Your task to perform on an android device: Add razer blackwidow to the cart on costco Image 0: 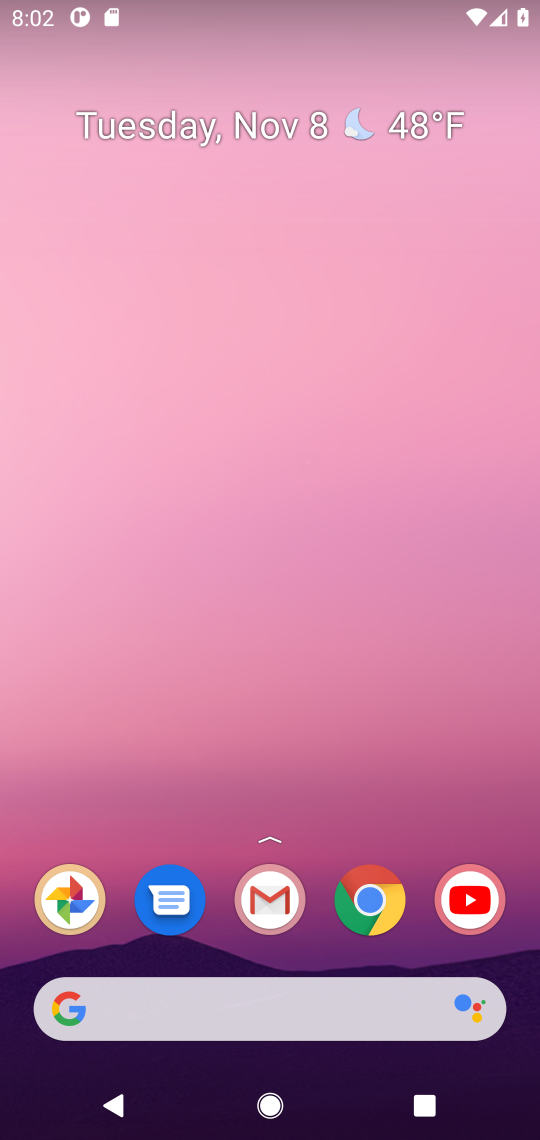
Step 0: drag from (195, 1036) to (216, 301)
Your task to perform on an android device: Add razer blackwidow to the cart on costco Image 1: 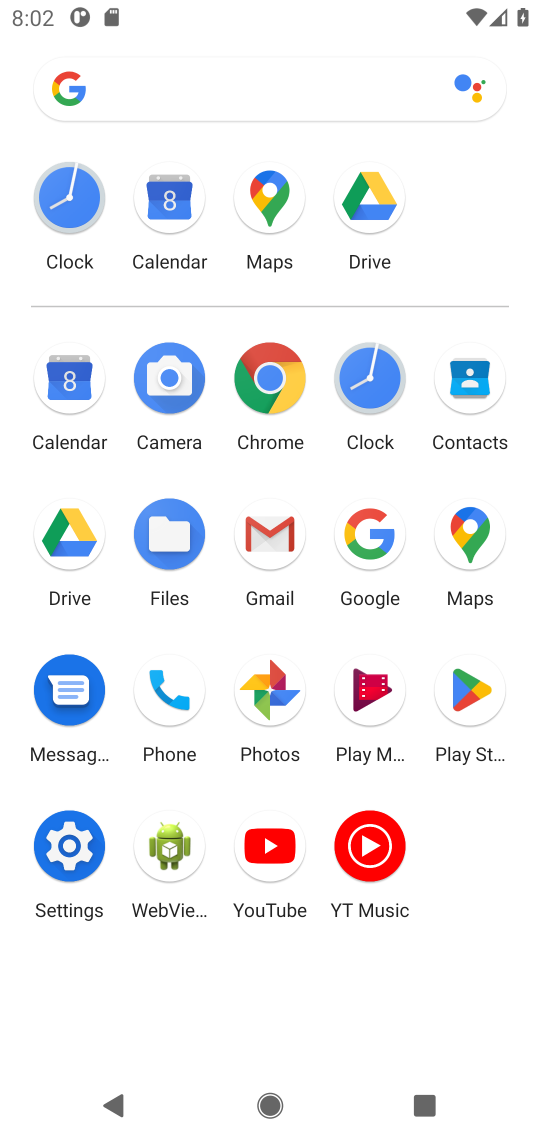
Step 1: click (368, 539)
Your task to perform on an android device: Add razer blackwidow to the cart on costco Image 2: 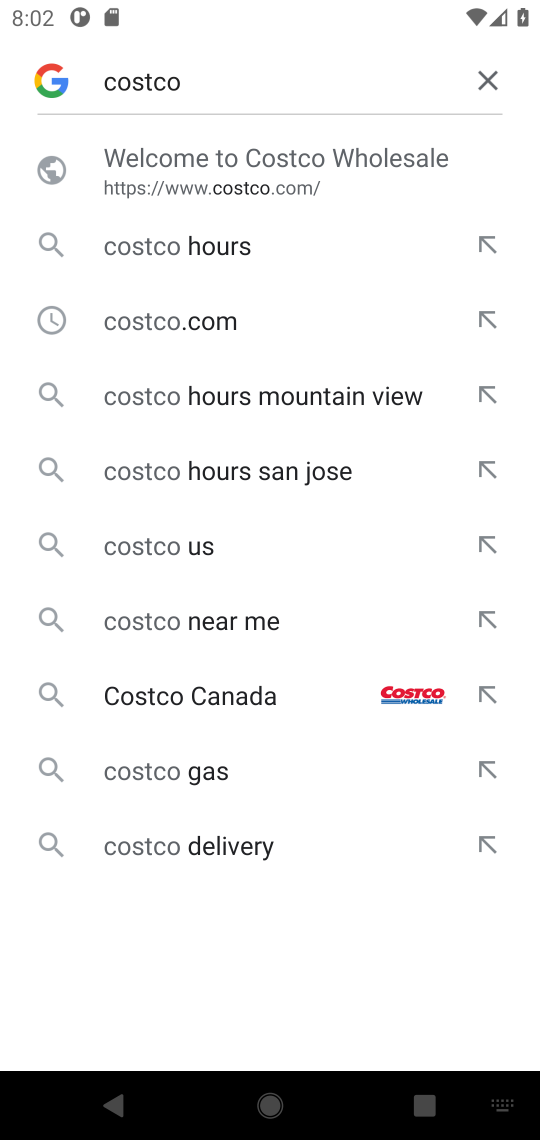
Step 2: click (490, 80)
Your task to perform on an android device: Add razer blackwidow to the cart on costco Image 3: 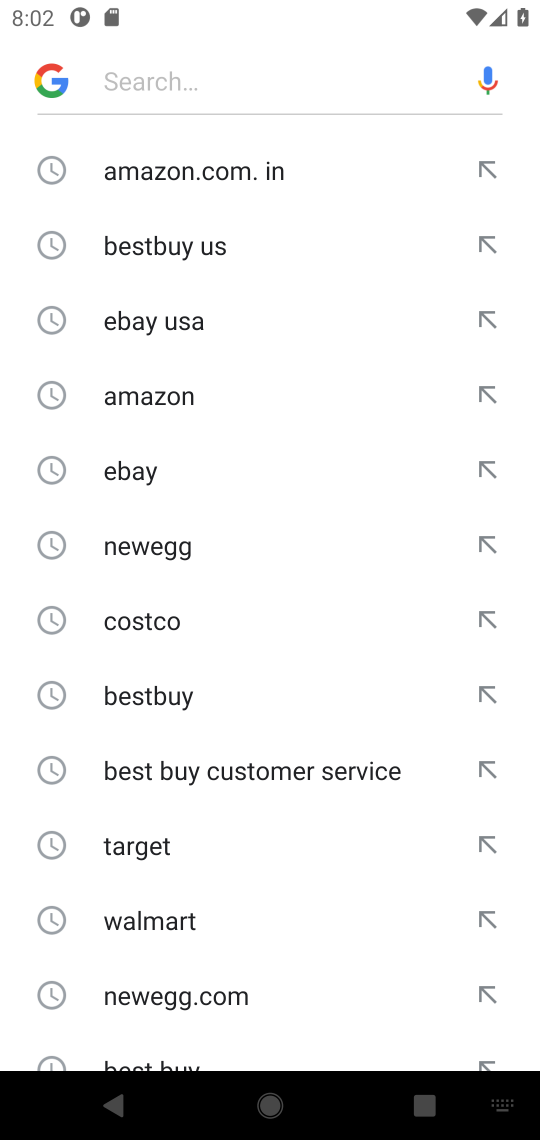
Step 3: click (237, 72)
Your task to perform on an android device: Add razer blackwidow to the cart on costco Image 4: 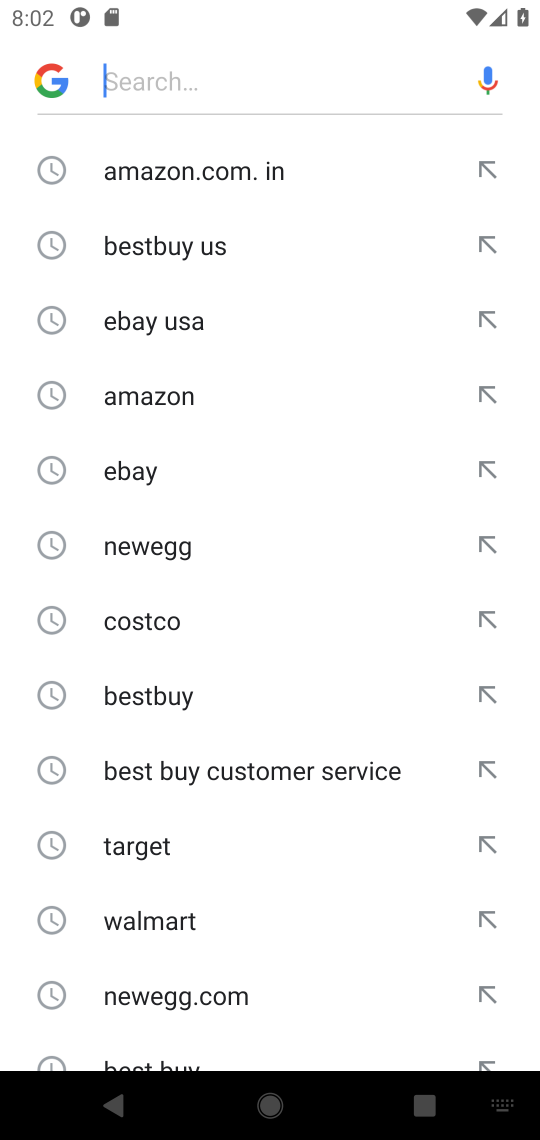
Step 4: type "costco "
Your task to perform on an android device: Add razer blackwidow to the cart on costco Image 5: 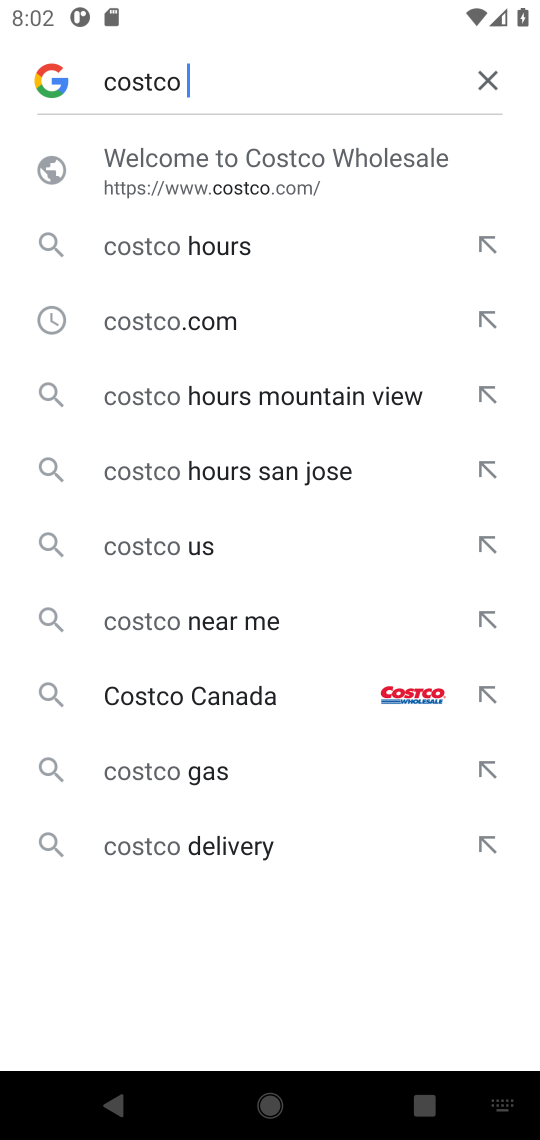
Step 5: click (251, 168)
Your task to perform on an android device: Add razer blackwidow to the cart on costco Image 6: 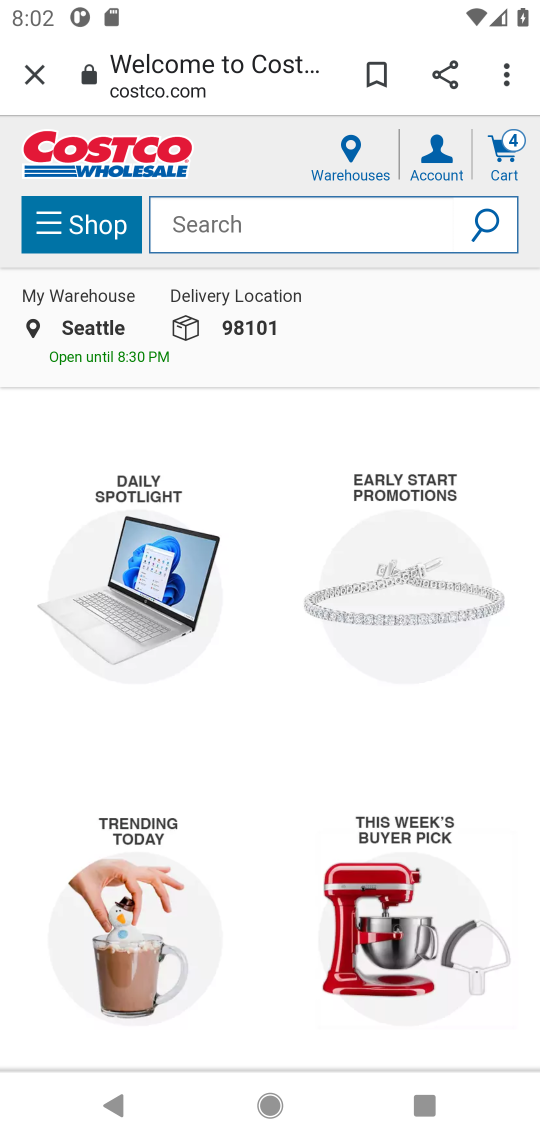
Step 6: click (291, 219)
Your task to perform on an android device: Add razer blackwidow to the cart on costco Image 7: 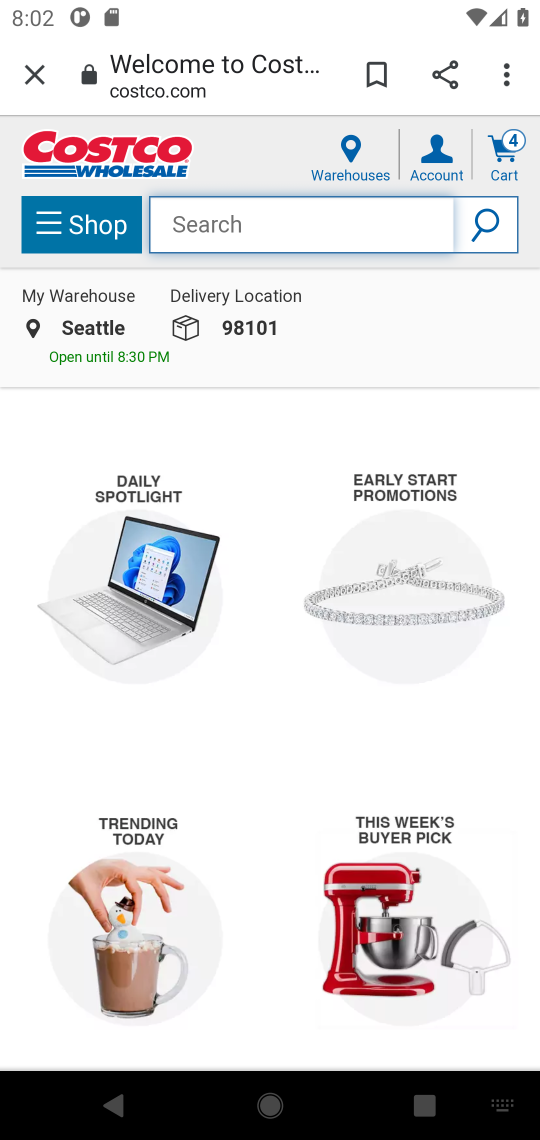
Step 7: type "razer blackwidow "
Your task to perform on an android device: Add razer blackwidow to the cart on costco Image 8: 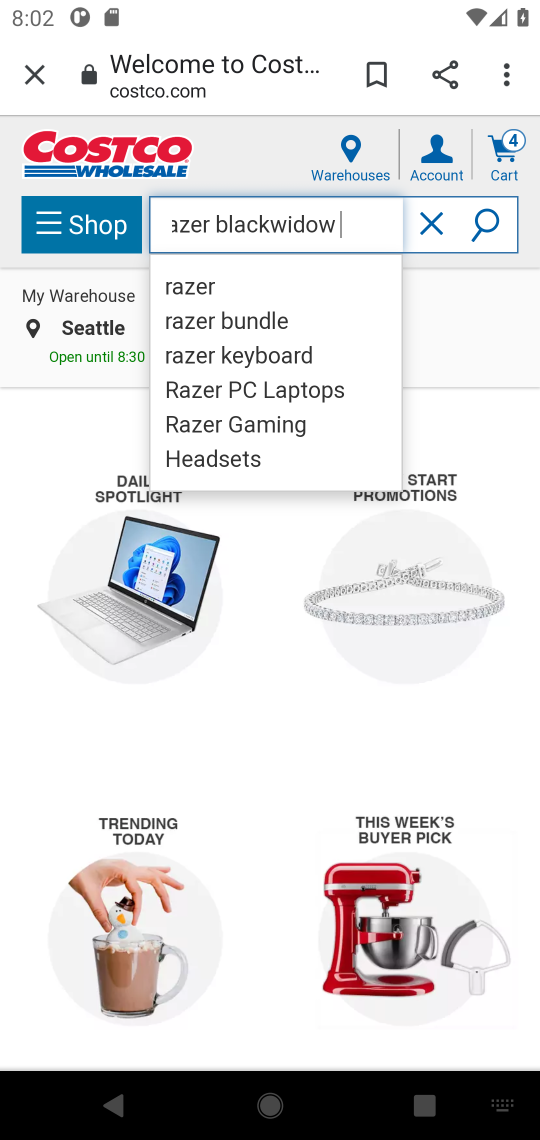
Step 8: click (494, 218)
Your task to perform on an android device: Add razer blackwidow to the cart on costco Image 9: 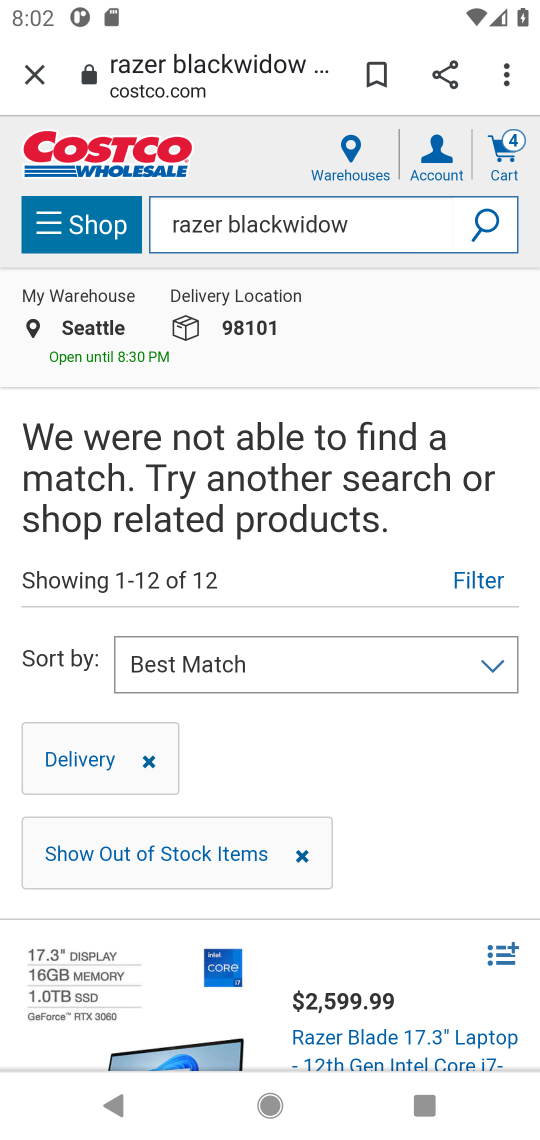
Step 9: drag from (420, 1001) to (402, 570)
Your task to perform on an android device: Add razer blackwidow to the cart on costco Image 10: 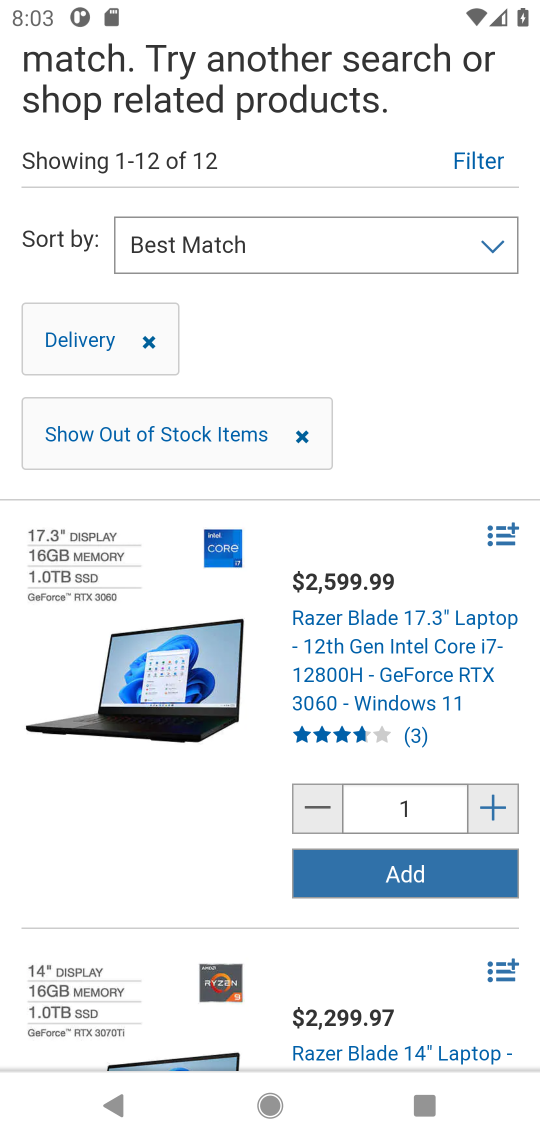
Step 10: click (377, 625)
Your task to perform on an android device: Add razer blackwidow to the cart on costco Image 11: 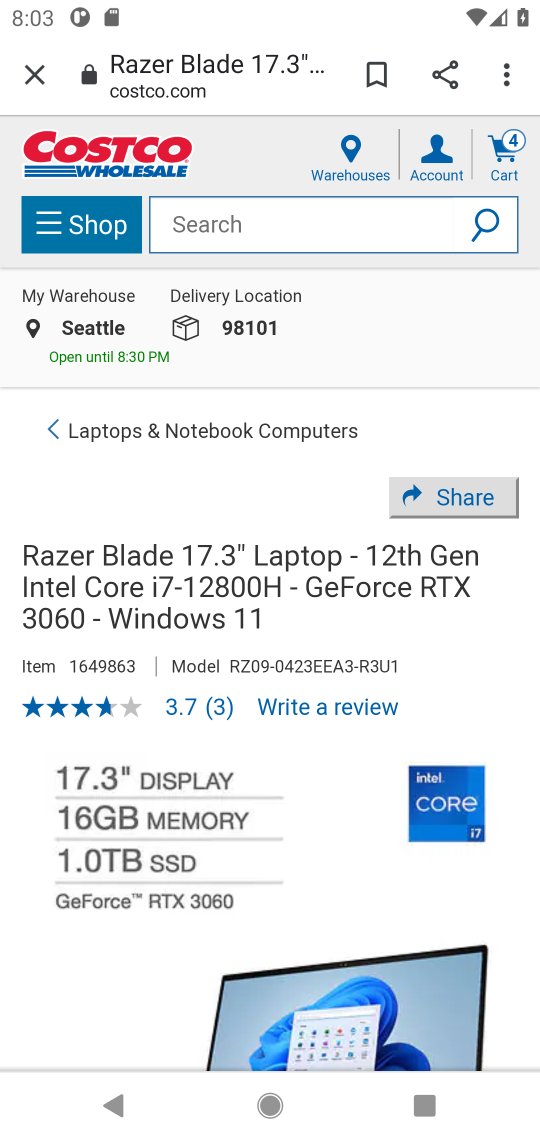
Step 11: click (342, 220)
Your task to perform on an android device: Add razer blackwidow to the cart on costco Image 12: 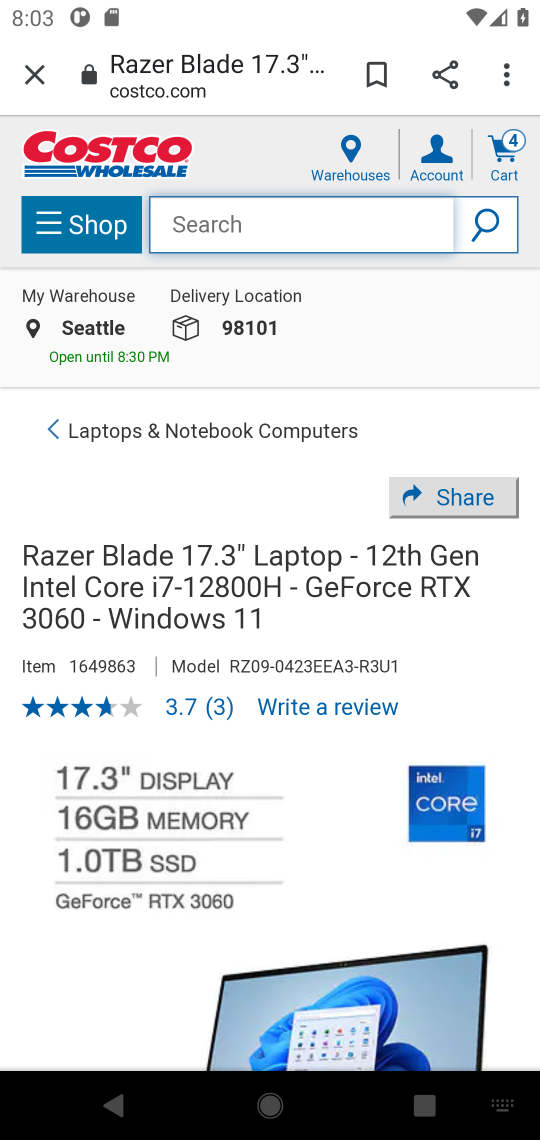
Step 12: type "razer blackwidow "
Your task to perform on an android device: Add razer blackwidow to the cart on costco Image 13: 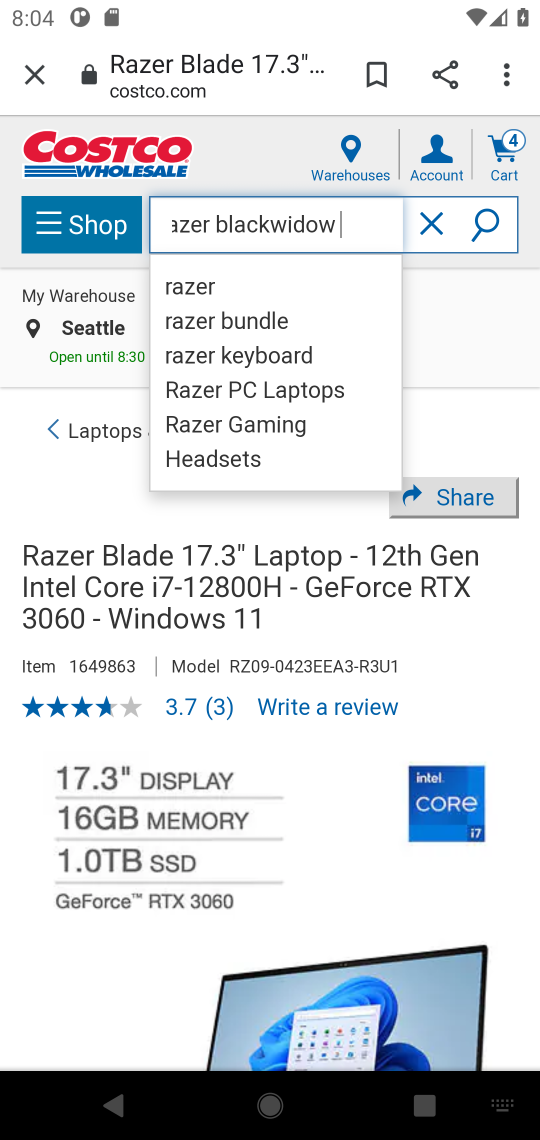
Step 13: click (129, 948)
Your task to perform on an android device: Add razer blackwidow to the cart on costco Image 14: 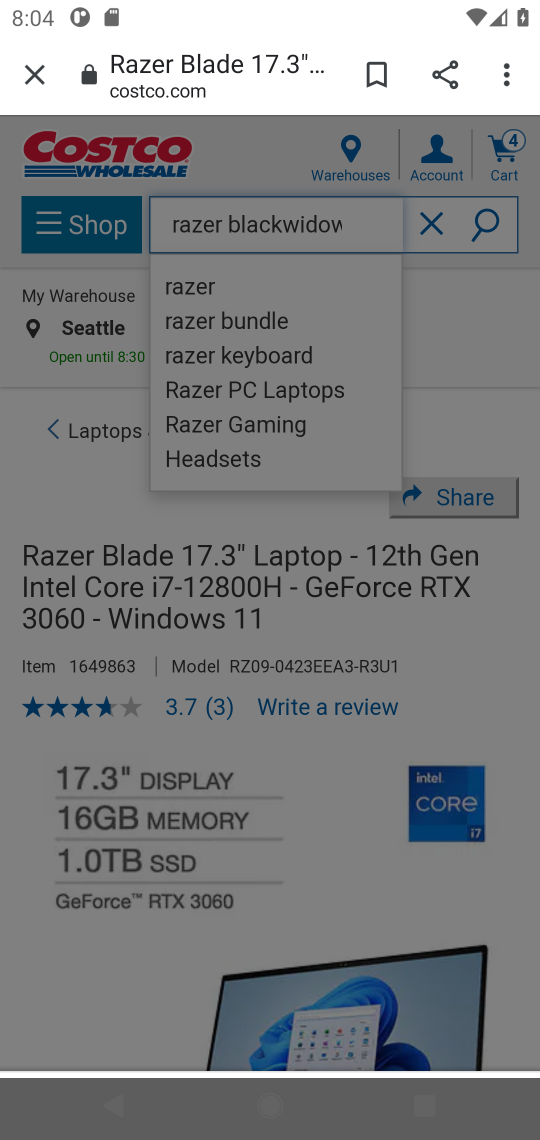
Step 14: drag from (264, 936) to (295, 539)
Your task to perform on an android device: Add razer blackwidow to the cart on costco Image 15: 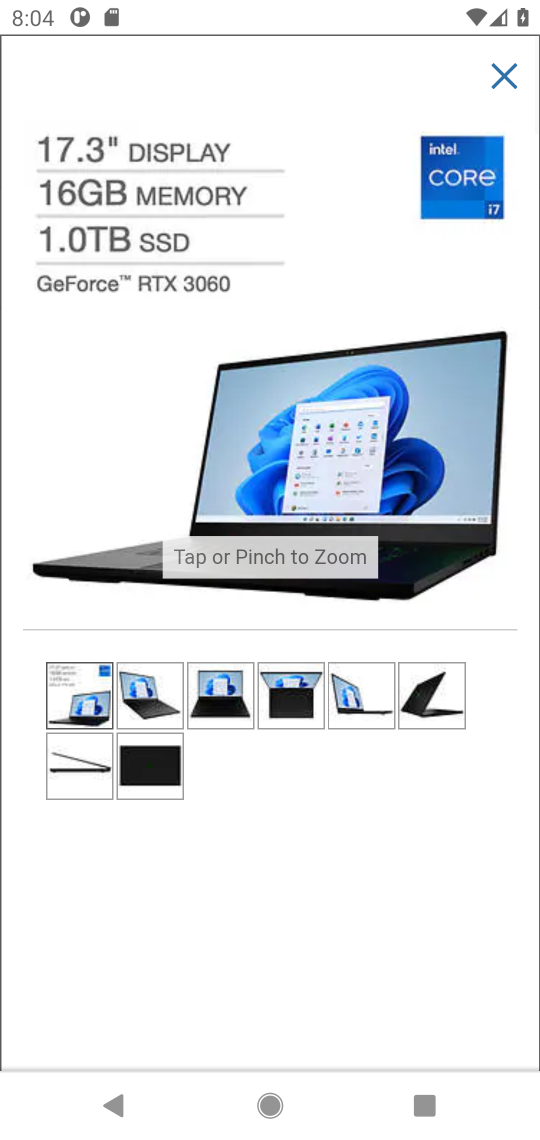
Step 15: click (440, 216)
Your task to perform on an android device: Add razer blackwidow to the cart on costco Image 16: 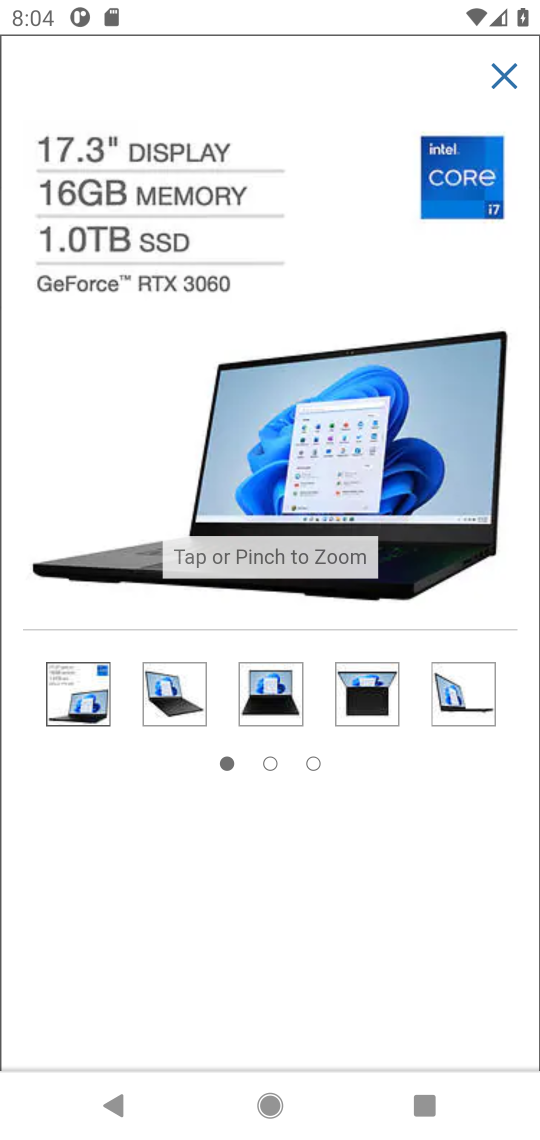
Step 16: drag from (293, 322) to (365, 227)
Your task to perform on an android device: Add razer blackwidow to the cart on costco Image 17: 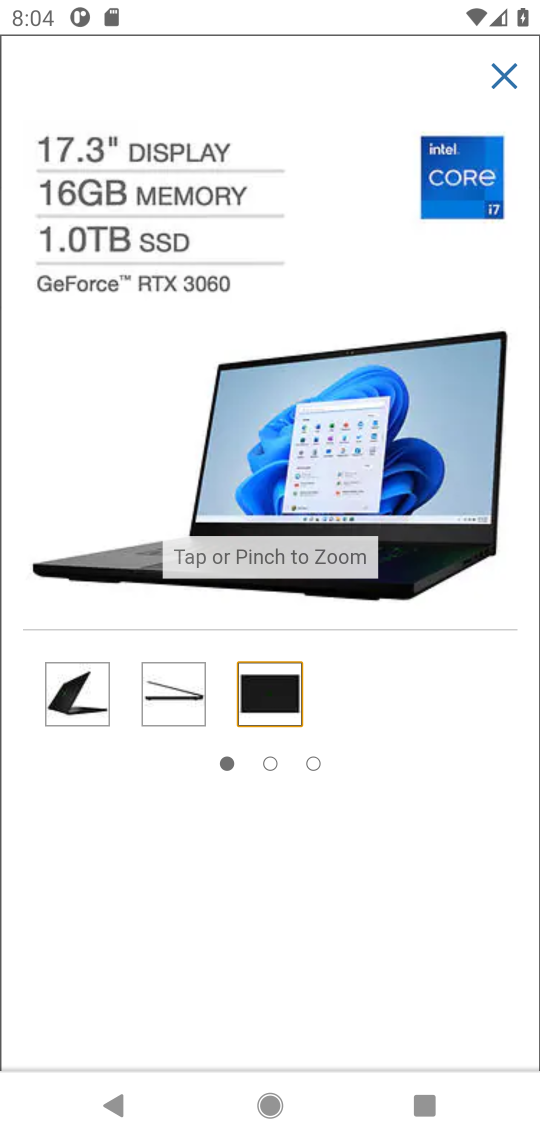
Step 17: press back button
Your task to perform on an android device: Add razer blackwidow to the cart on costco Image 18: 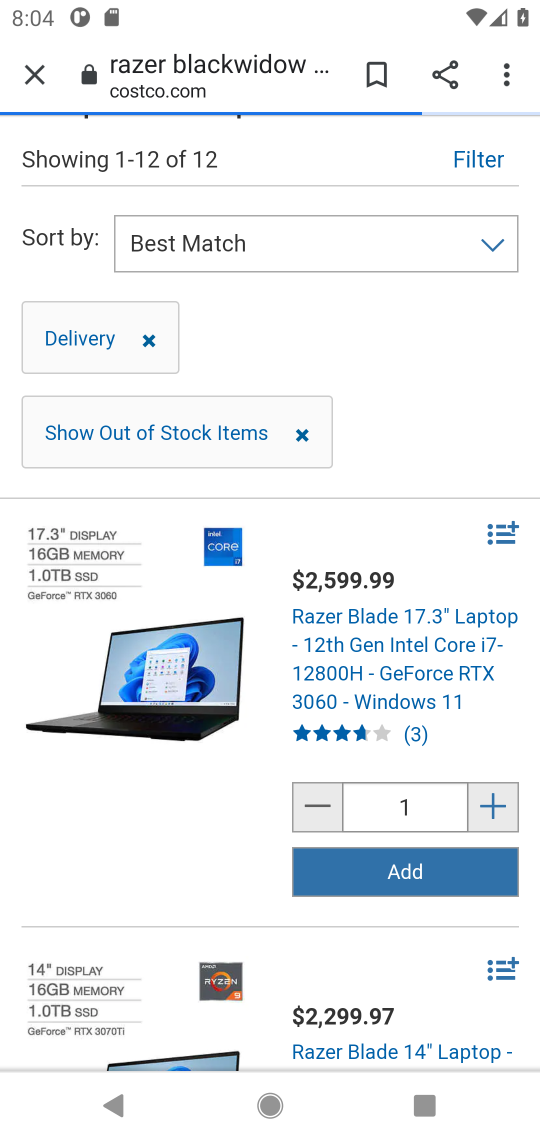
Step 18: click (427, 871)
Your task to perform on an android device: Add razer blackwidow to the cart on costco Image 19: 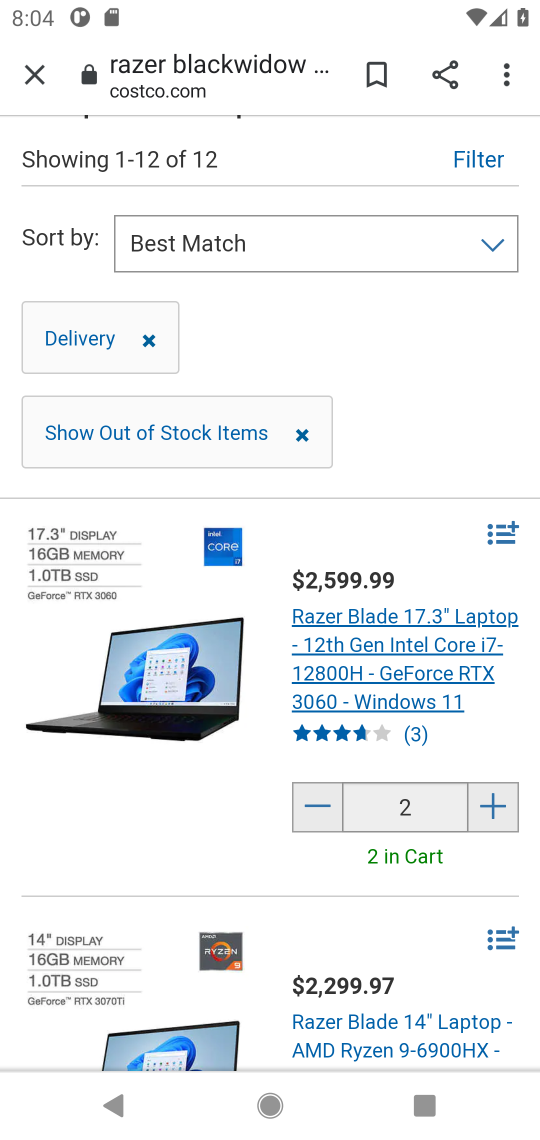
Step 19: task complete